Your task to perform on an android device: Open CNN.com Image 0: 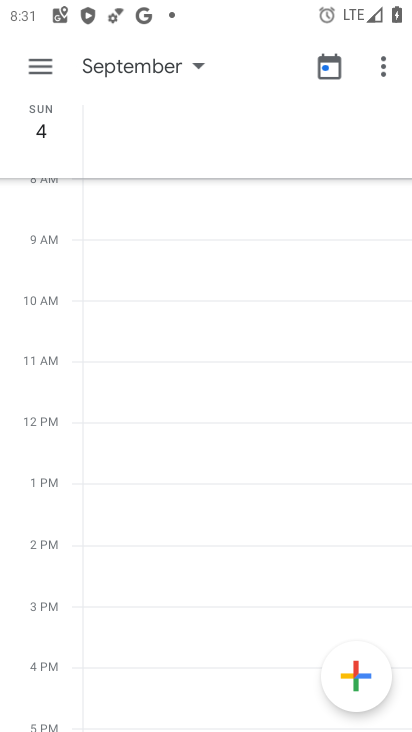
Step 0: press home button
Your task to perform on an android device: Open CNN.com Image 1: 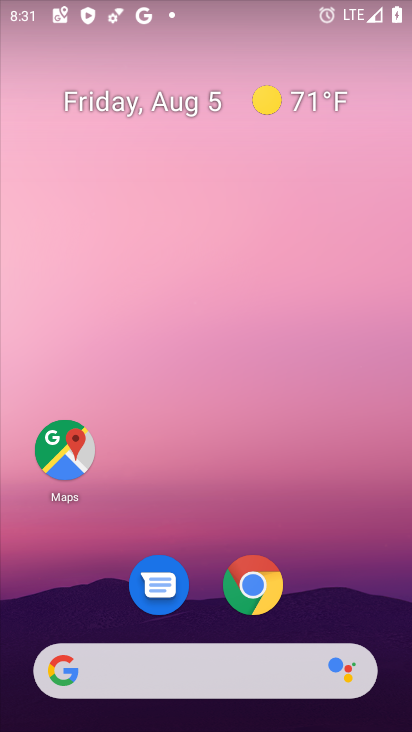
Step 1: click (217, 668)
Your task to perform on an android device: Open CNN.com Image 2: 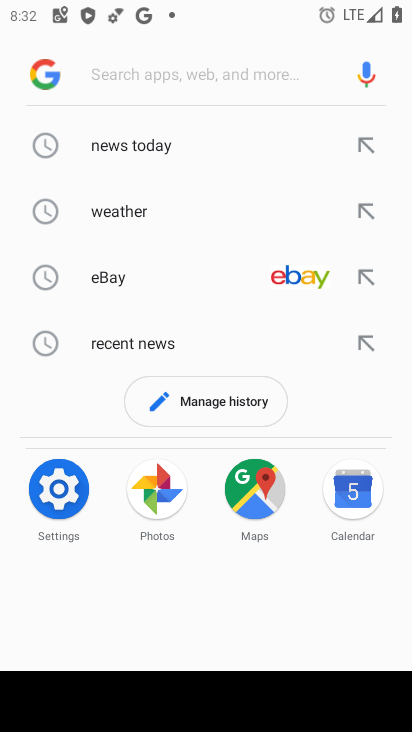
Step 2: type "ccnn.com"
Your task to perform on an android device: Open CNN.com Image 3: 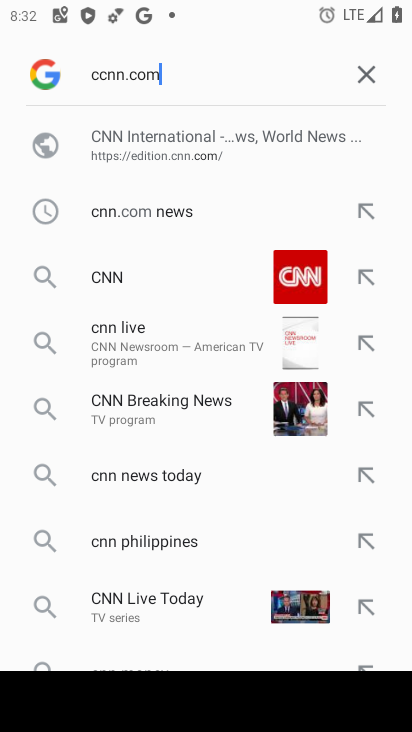
Step 3: click (219, 144)
Your task to perform on an android device: Open CNN.com Image 4: 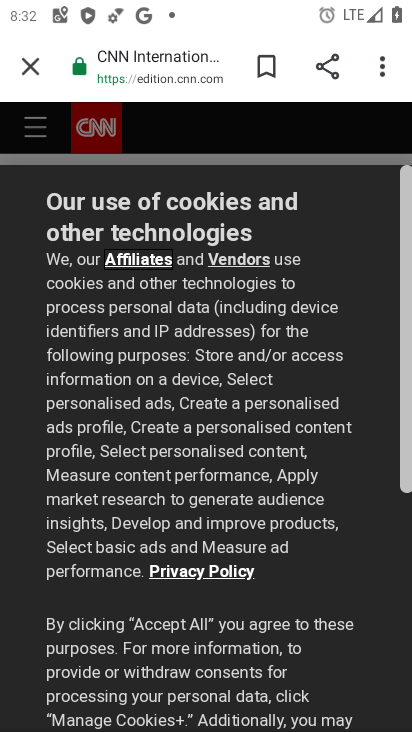
Step 4: drag from (300, 573) to (335, 170)
Your task to perform on an android device: Open CNN.com Image 5: 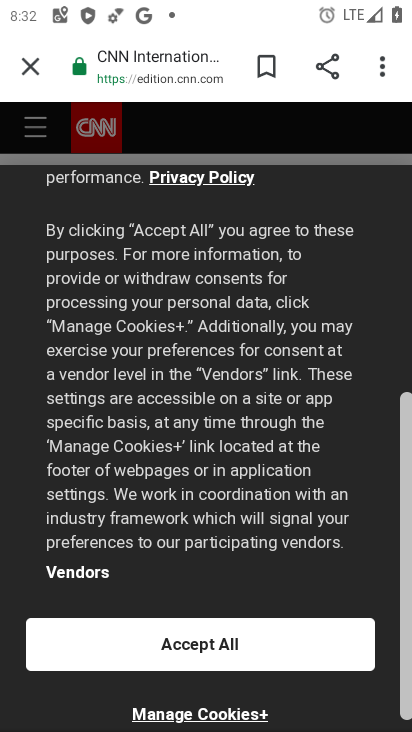
Step 5: click (257, 635)
Your task to perform on an android device: Open CNN.com Image 6: 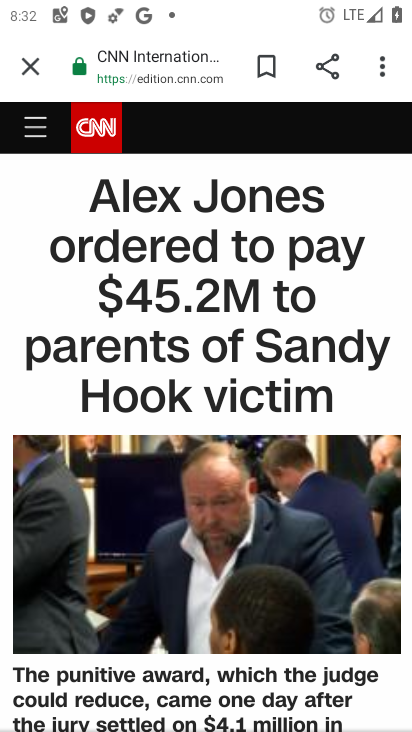
Step 6: task complete